Your task to perform on an android device: open chrome and create a bookmark for the current page Image 0: 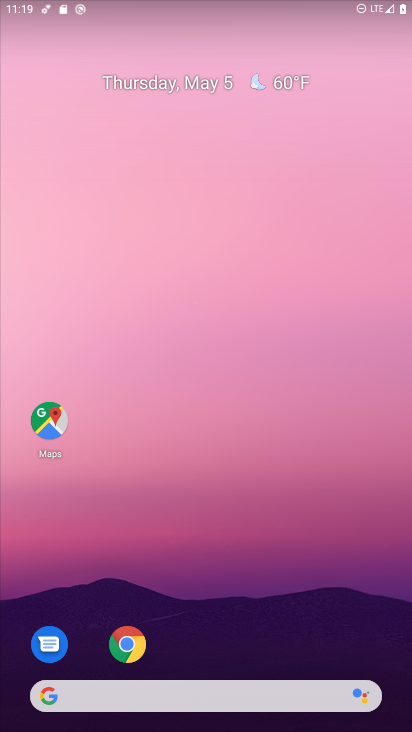
Step 0: drag from (377, 622) to (385, 179)
Your task to perform on an android device: open chrome and create a bookmark for the current page Image 1: 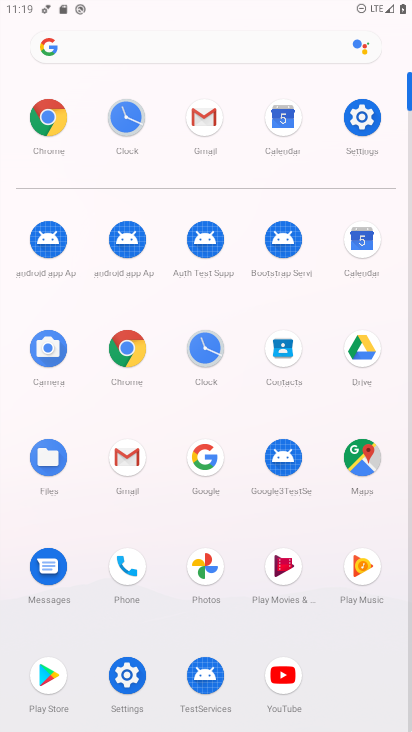
Step 1: click (134, 359)
Your task to perform on an android device: open chrome and create a bookmark for the current page Image 2: 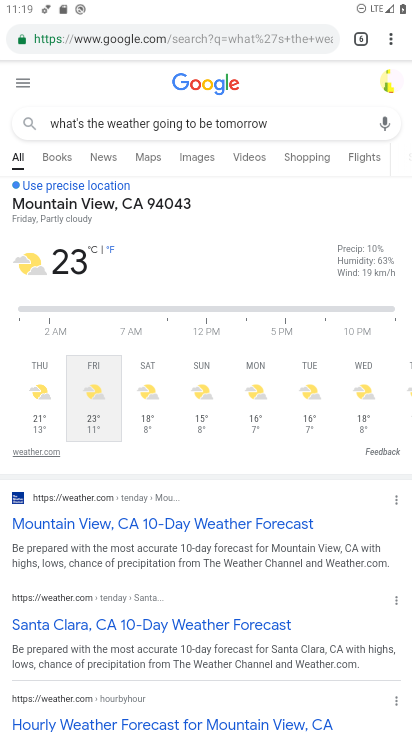
Step 2: task complete